Your task to perform on an android device: choose inbox layout in the gmail app Image 0: 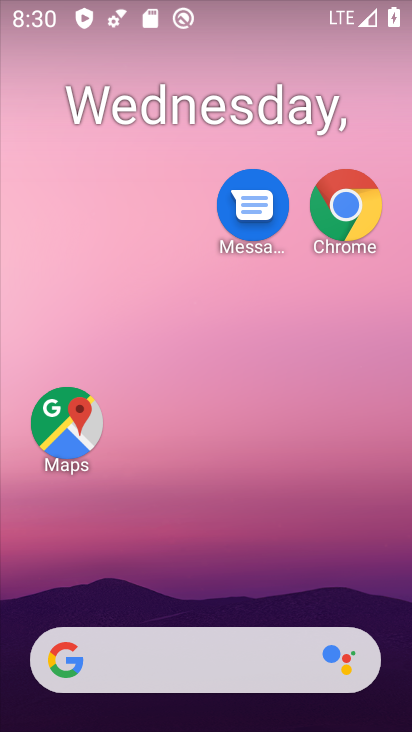
Step 0: drag from (189, 614) to (177, 291)
Your task to perform on an android device: choose inbox layout in the gmail app Image 1: 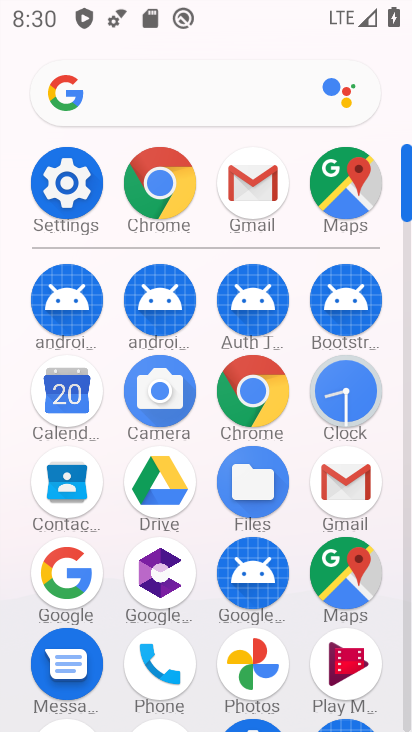
Step 1: click (348, 480)
Your task to perform on an android device: choose inbox layout in the gmail app Image 2: 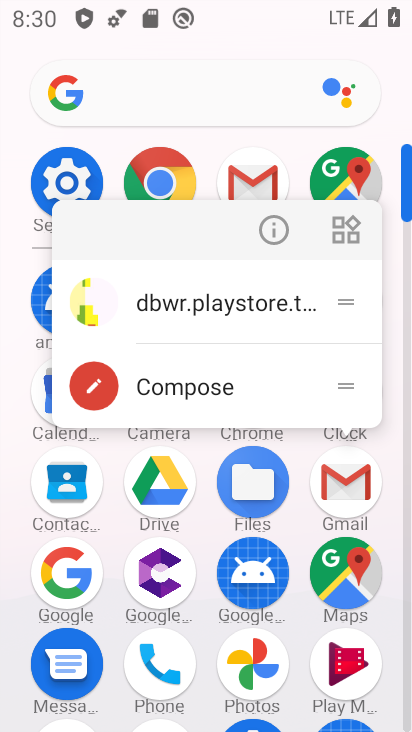
Step 2: click (276, 222)
Your task to perform on an android device: choose inbox layout in the gmail app Image 3: 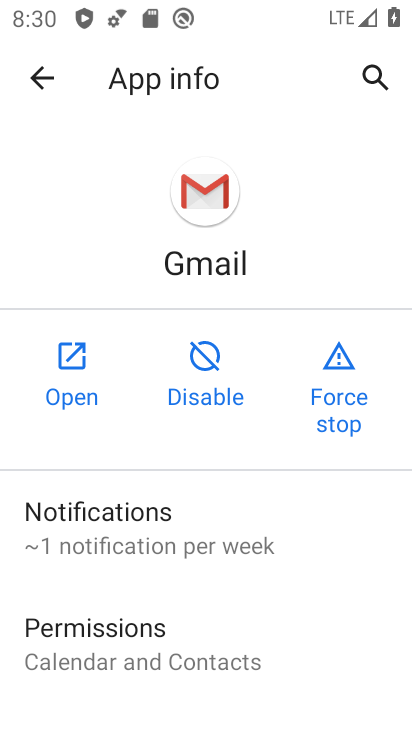
Step 3: click (105, 351)
Your task to perform on an android device: choose inbox layout in the gmail app Image 4: 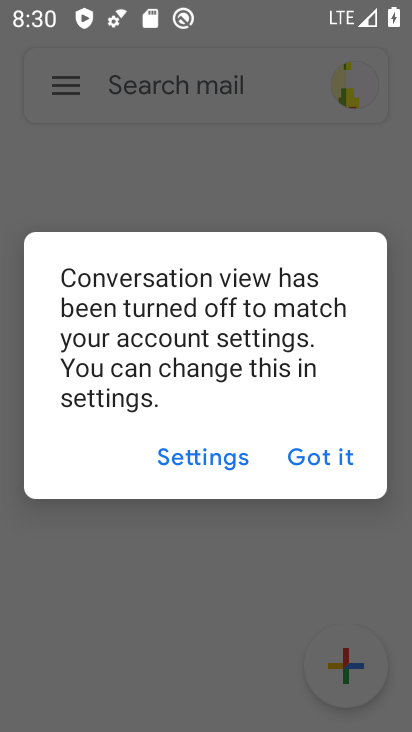
Step 4: click (189, 444)
Your task to perform on an android device: choose inbox layout in the gmail app Image 5: 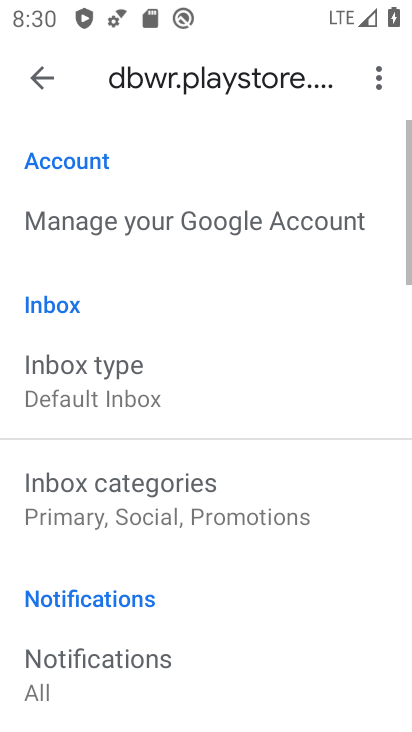
Step 5: drag from (198, 611) to (269, 266)
Your task to perform on an android device: choose inbox layout in the gmail app Image 6: 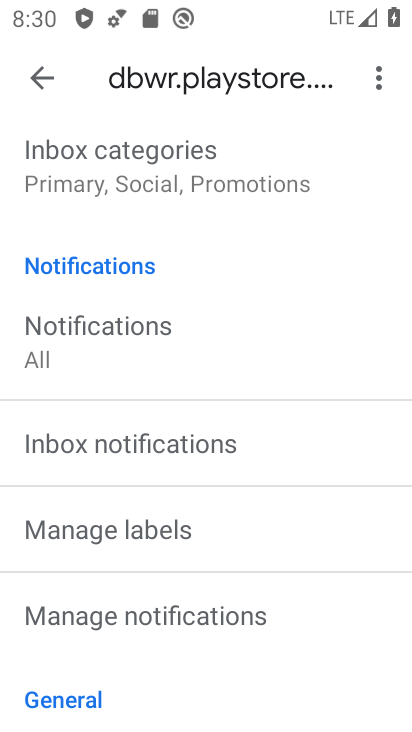
Step 6: drag from (173, 329) to (284, 720)
Your task to perform on an android device: choose inbox layout in the gmail app Image 7: 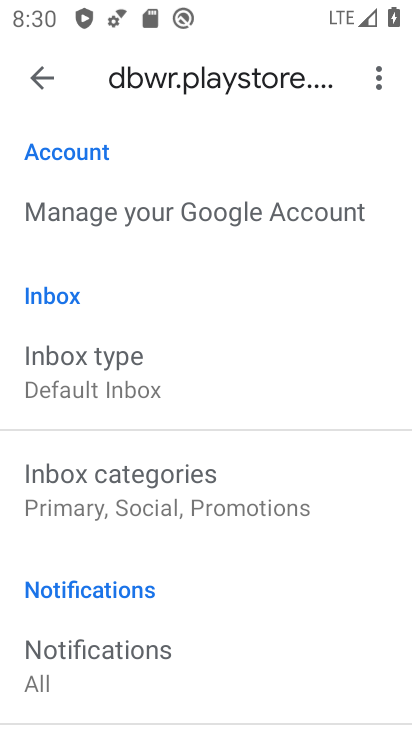
Step 7: click (34, 79)
Your task to perform on an android device: choose inbox layout in the gmail app Image 8: 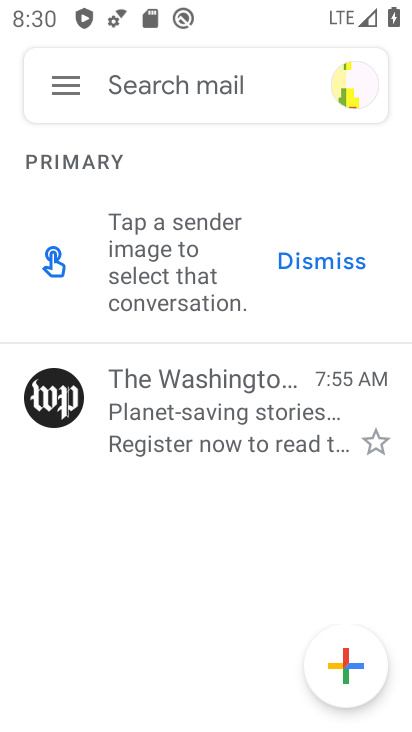
Step 8: click (51, 57)
Your task to perform on an android device: choose inbox layout in the gmail app Image 9: 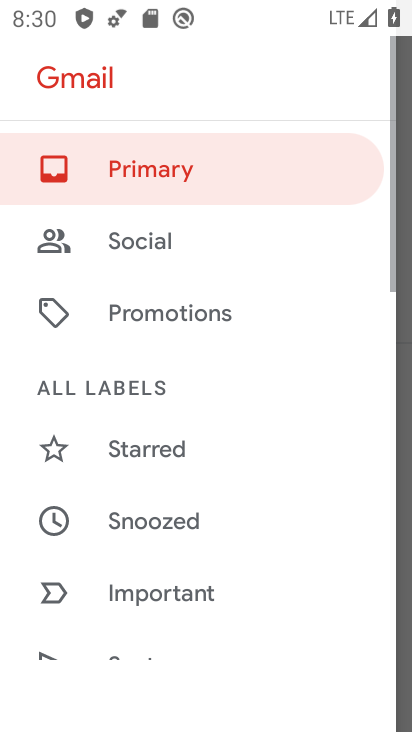
Step 9: click (119, 160)
Your task to perform on an android device: choose inbox layout in the gmail app Image 10: 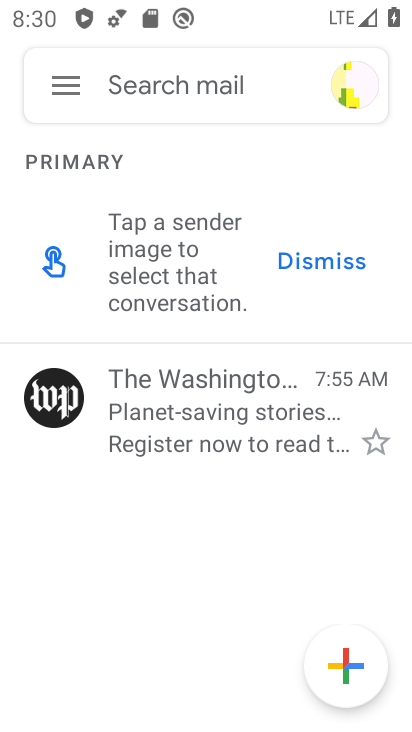
Step 10: task complete